Your task to perform on an android device: turn smart compose on in the gmail app Image 0: 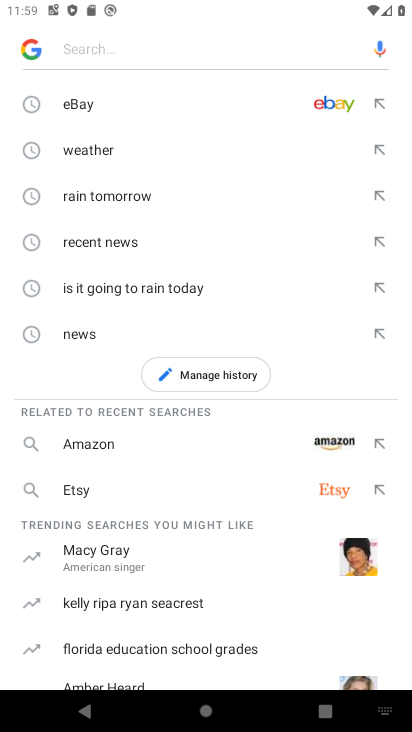
Step 0: press home button
Your task to perform on an android device: turn smart compose on in the gmail app Image 1: 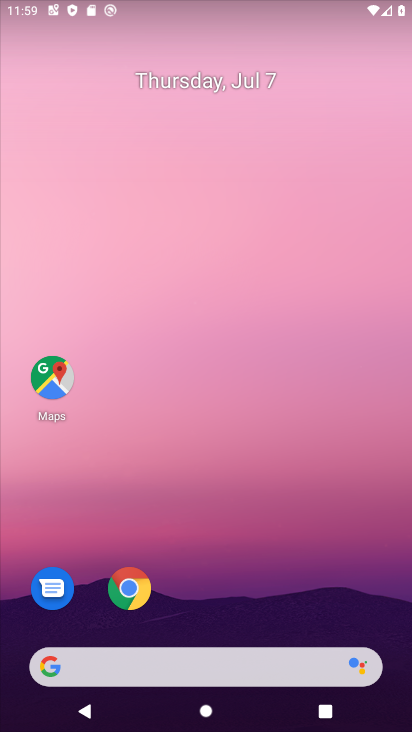
Step 1: drag from (207, 590) to (201, 143)
Your task to perform on an android device: turn smart compose on in the gmail app Image 2: 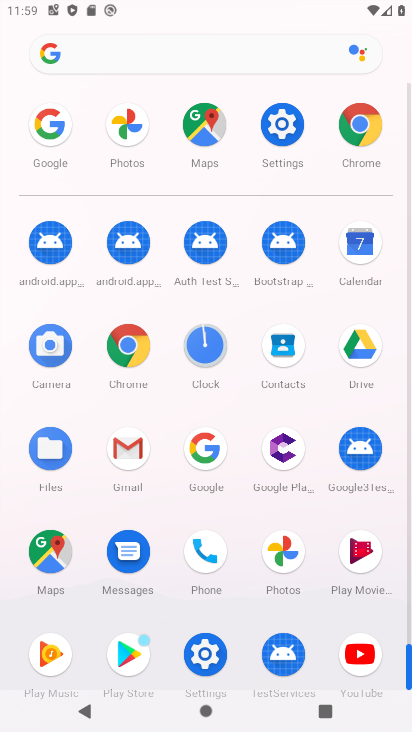
Step 2: click (123, 455)
Your task to perform on an android device: turn smart compose on in the gmail app Image 3: 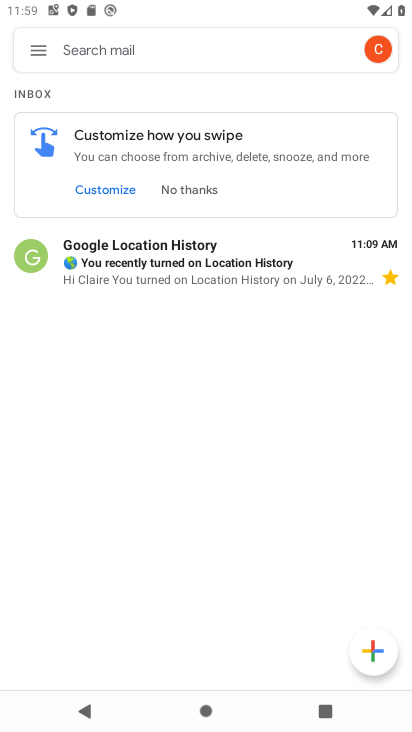
Step 3: click (47, 43)
Your task to perform on an android device: turn smart compose on in the gmail app Image 4: 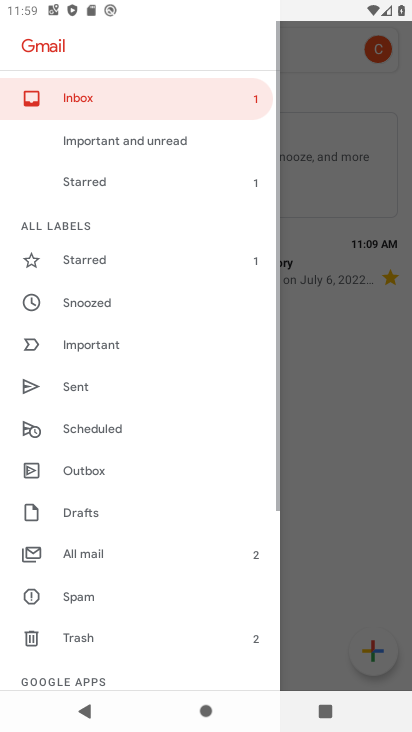
Step 4: drag from (118, 648) to (131, 224)
Your task to perform on an android device: turn smart compose on in the gmail app Image 5: 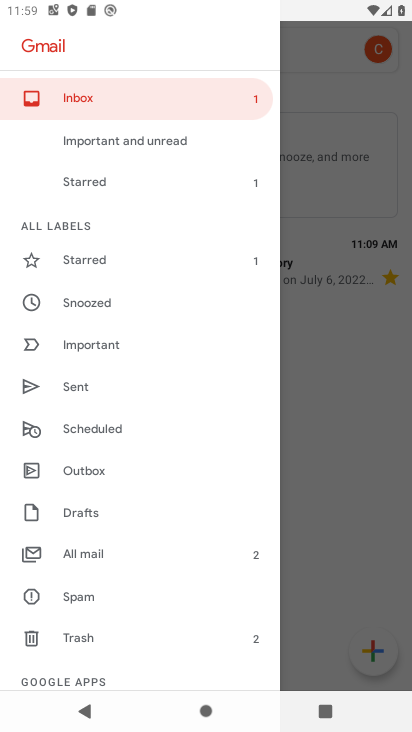
Step 5: drag from (134, 606) to (152, 292)
Your task to perform on an android device: turn smart compose on in the gmail app Image 6: 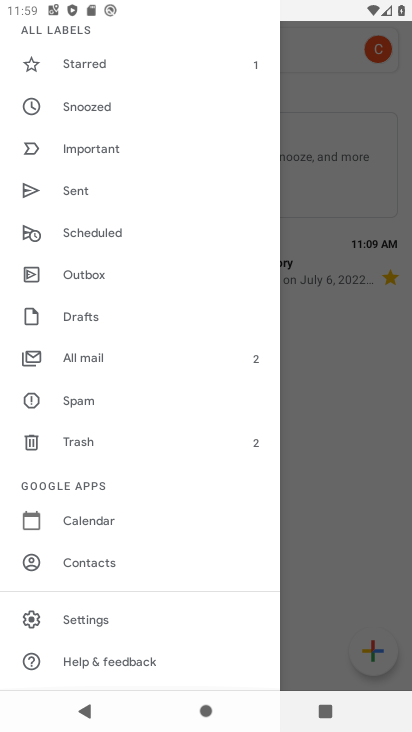
Step 6: click (89, 610)
Your task to perform on an android device: turn smart compose on in the gmail app Image 7: 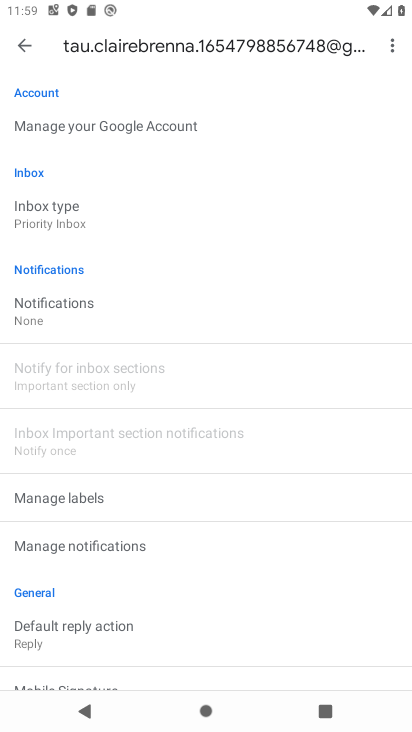
Step 7: task complete